Your task to perform on an android device: Go to battery settings Image 0: 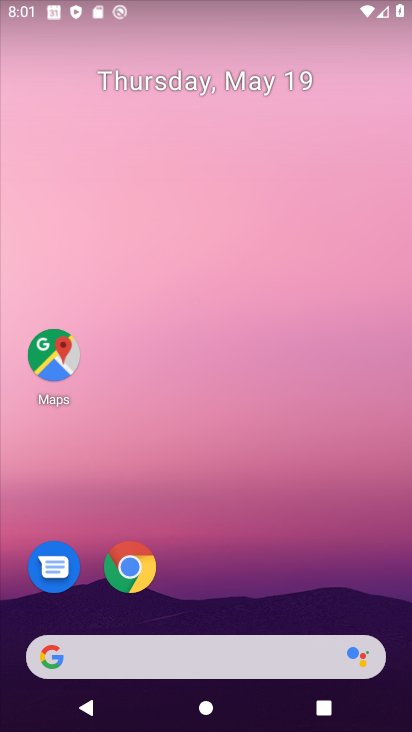
Step 0: drag from (189, 615) to (173, 233)
Your task to perform on an android device: Go to battery settings Image 1: 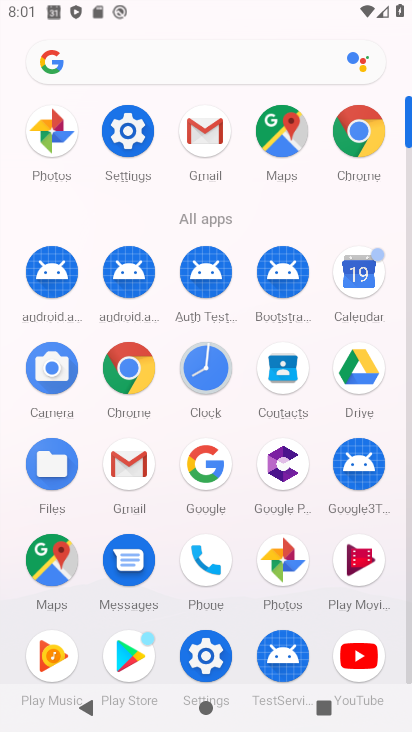
Step 1: click (117, 139)
Your task to perform on an android device: Go to battery settings Image 2: 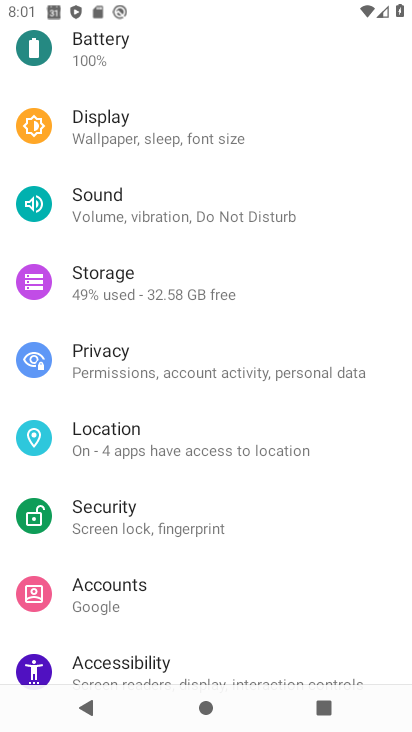
Step 2: click (85, 65)
Your task to perform on an android device: Go to battery settings Image 3: 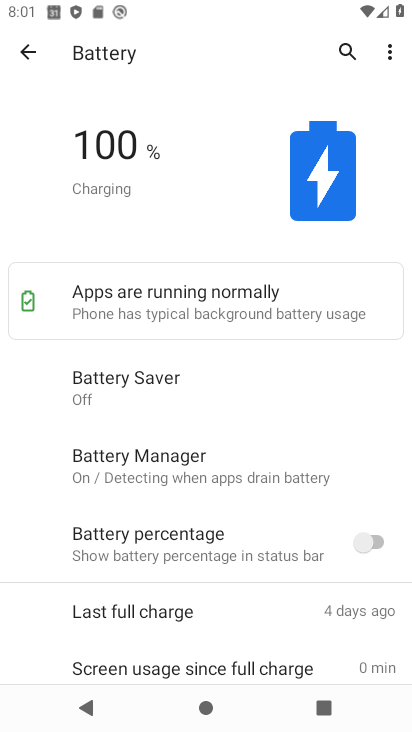
Step 3: task complete